Your task to perform on an android device: Open Android settings Image 0: 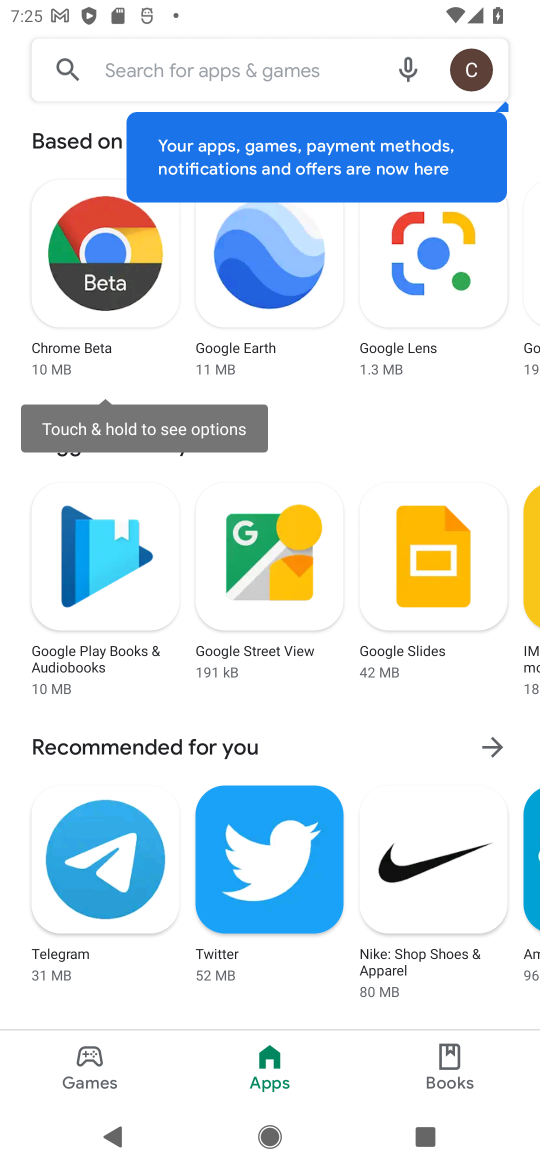
Step 0: press home button
Your task to perform on an android device: Open Android settings Image 1: 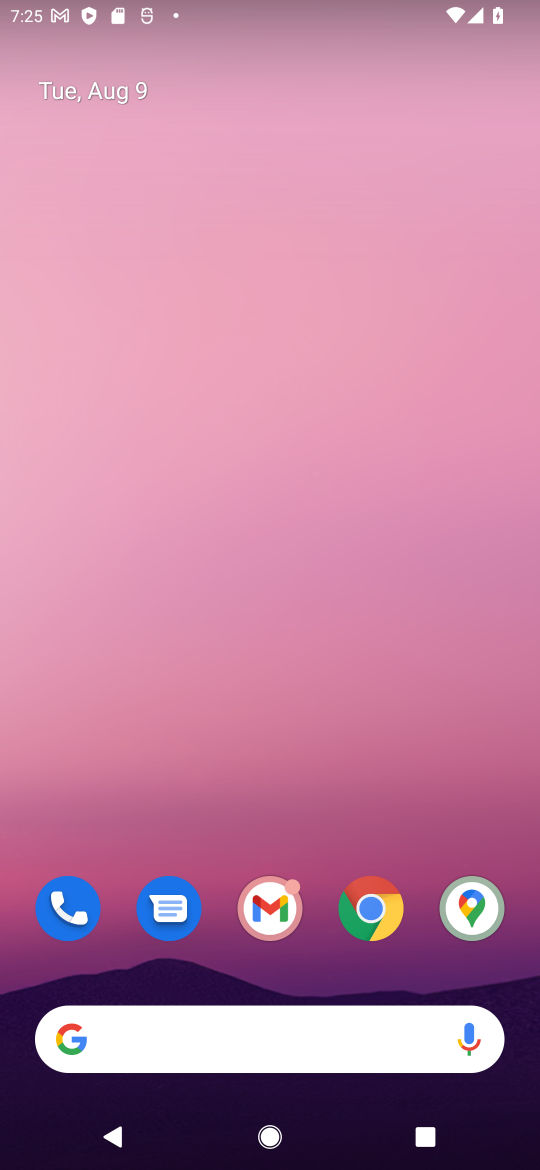
Step 1: drag from (321, 990) to (321, 69)
Your task to perform on an android device: Open Android settings Image 2: 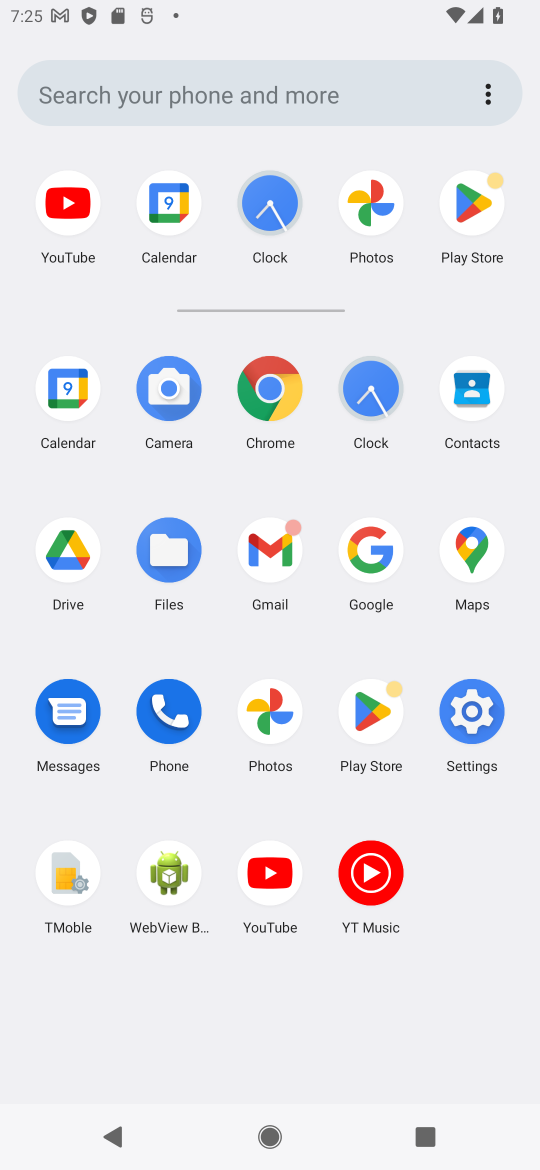
Step 2: click (469, 697)
Your task to perform on an android device: Open Android settings Image 3: 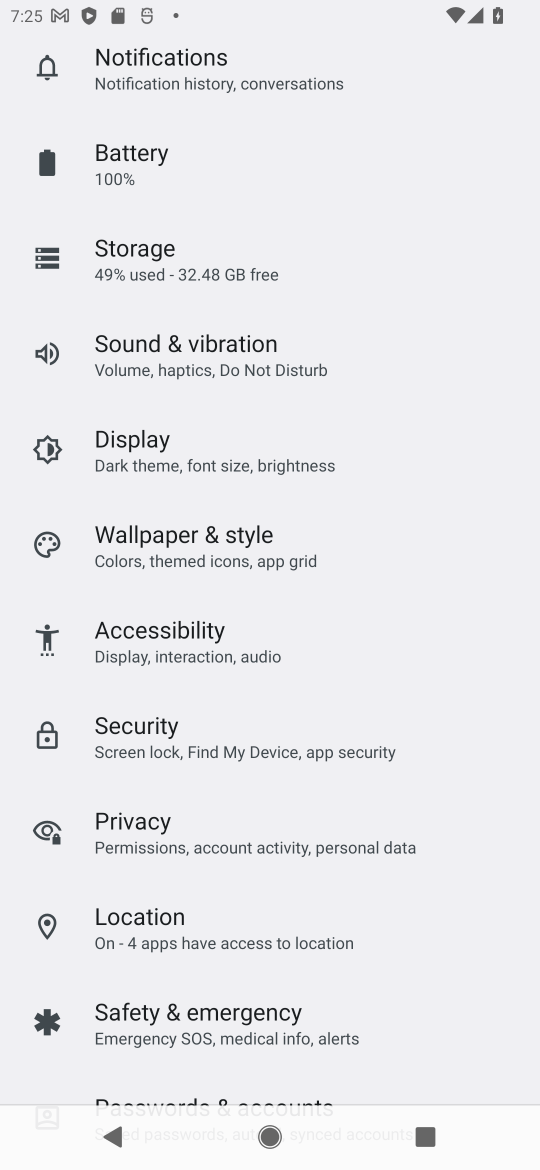
Step 3: task complete